Your task to perform on an android device: turn off airplane mode Image 0: 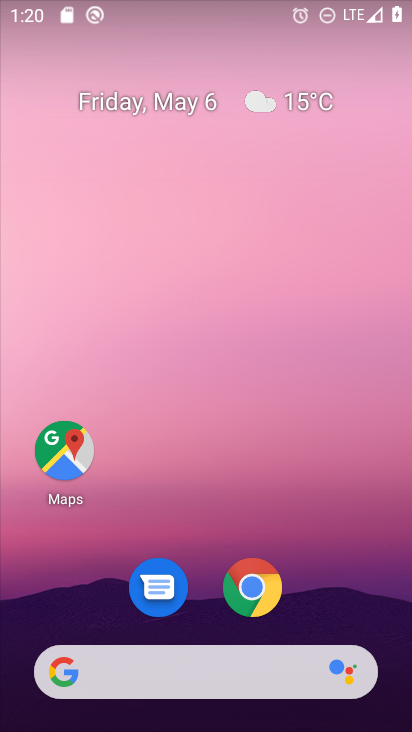
Step 0: drag from (343, 598) to (234, 14)
Your task to perform on an android device: turn off airplane mode Image 1: 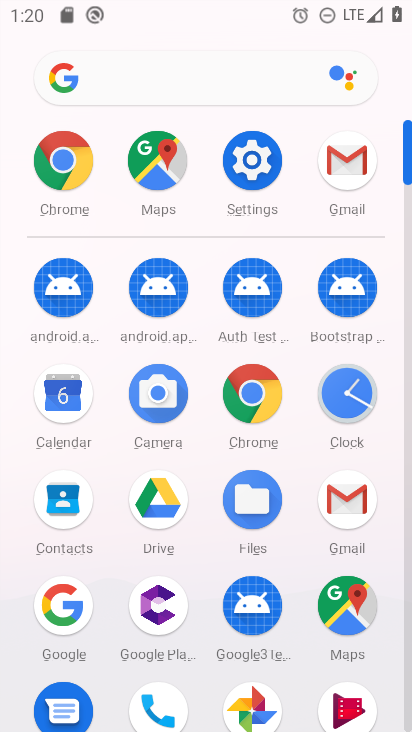
Step 1: click (250, 151)
Your task to perform on an android device: turn off airplane mode Image 2: 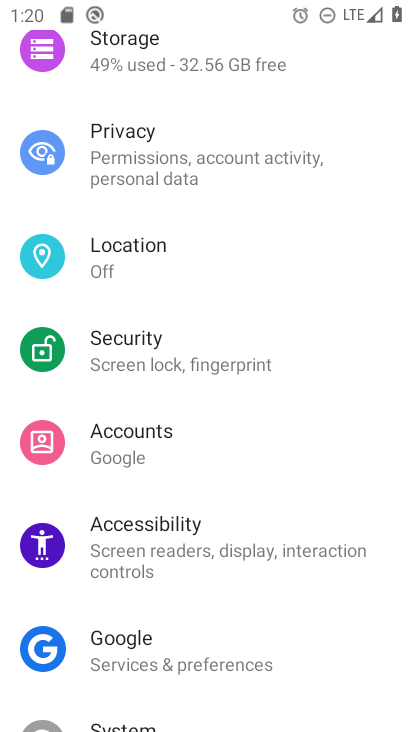
Step 2: drag from (249, 207) to (192, 731)
Your task to perform on an android device: turn off airplane mode Image 3: 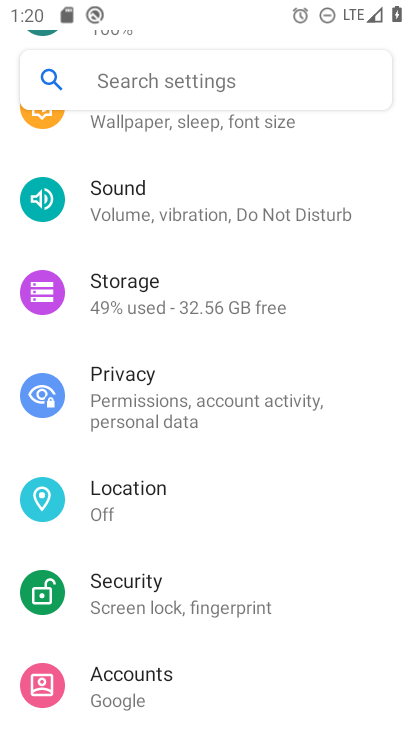
Step 3: drag from (226, 164) to (171, 719)
Your task to perform on an android device: turn off airplane mode Image 4: 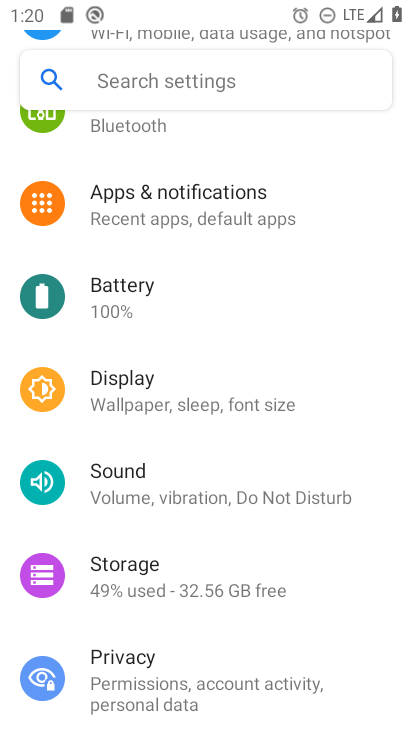
Step 4: drag from (237, 154) to (195, 731)
Your task to perform on an android device: turn off airplane mode Image 5: 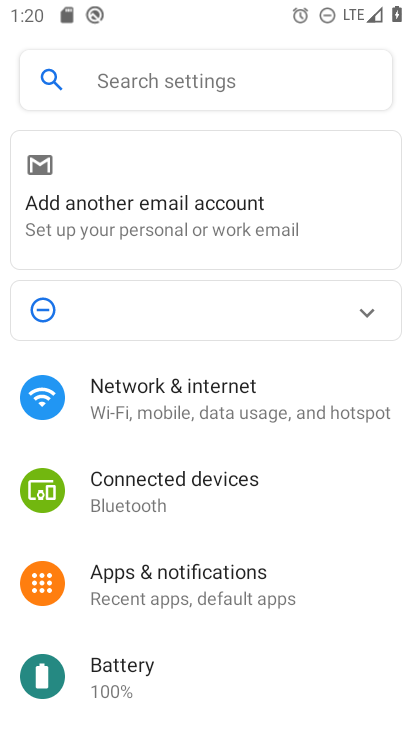
Step 5: click (220, 412)
Your task to perform on an android device: turn off airplane mode Image 6: 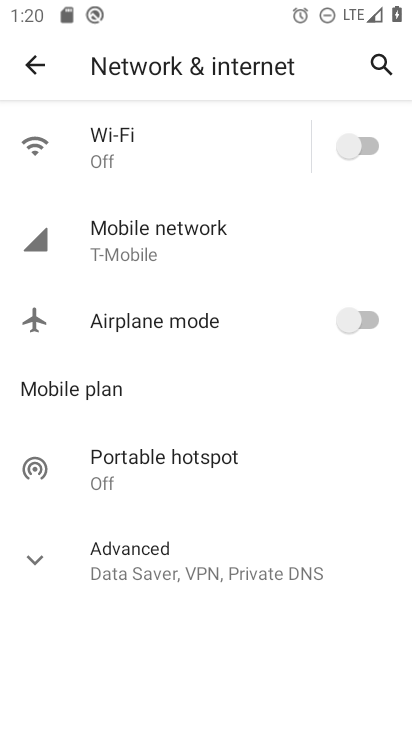
Step 6: task complete